Your task to perform on an android device: Open Android settings Image 0: 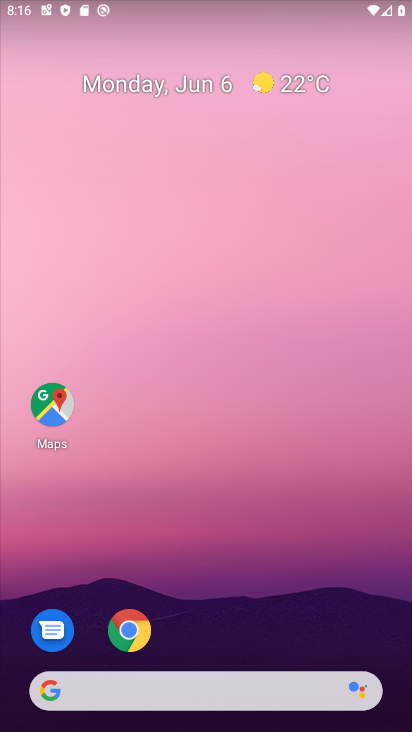
Step 0: drag from (131, 727) to (175, 105)
Your task to perform on an android device: Open Android settings Image 1: 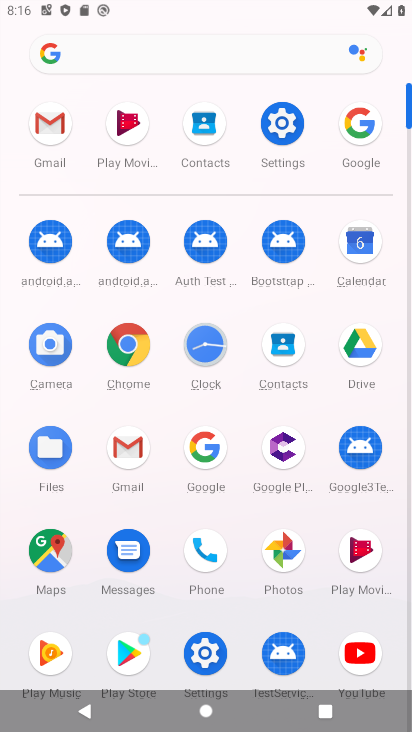
Step 1: click (301, 131)
Your task to perform on an android device: Open Android settings Image 2: 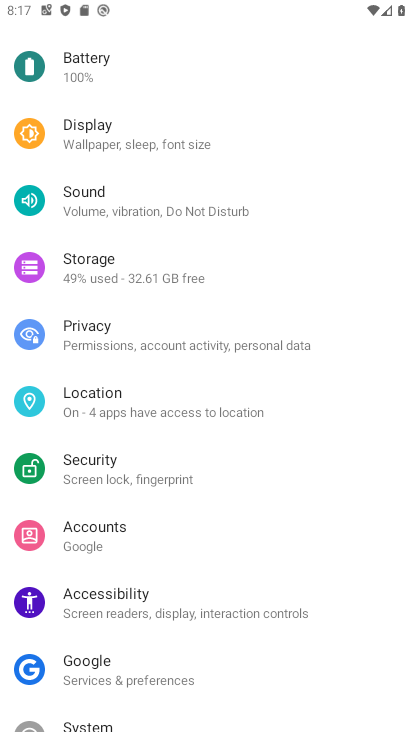
Step 2: task complete